Your task to perform on an android device: turn off sleep mode Image 0: 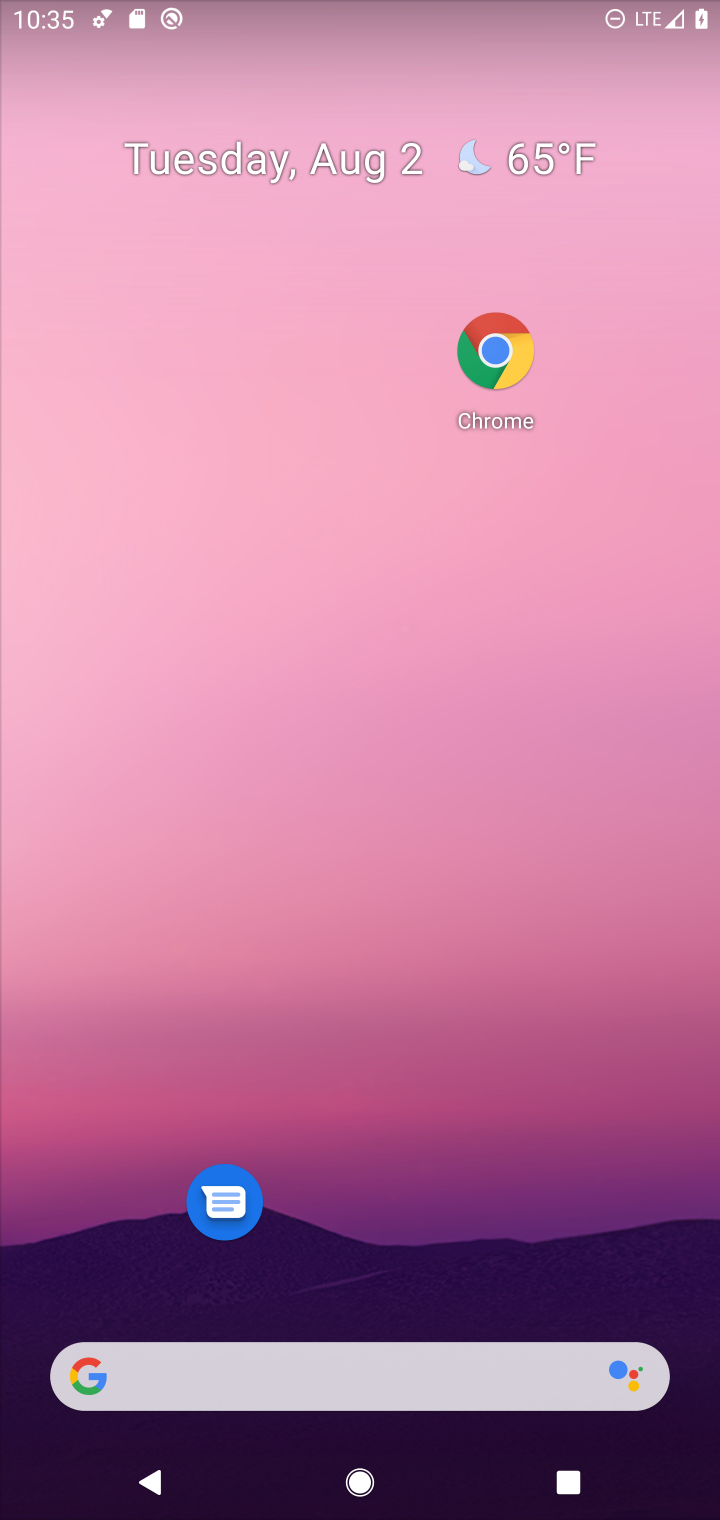
Step 0: drag from (404, 1194) to (399, 36)
Your task to perform on an android device: turn off sleep mode Image 1: 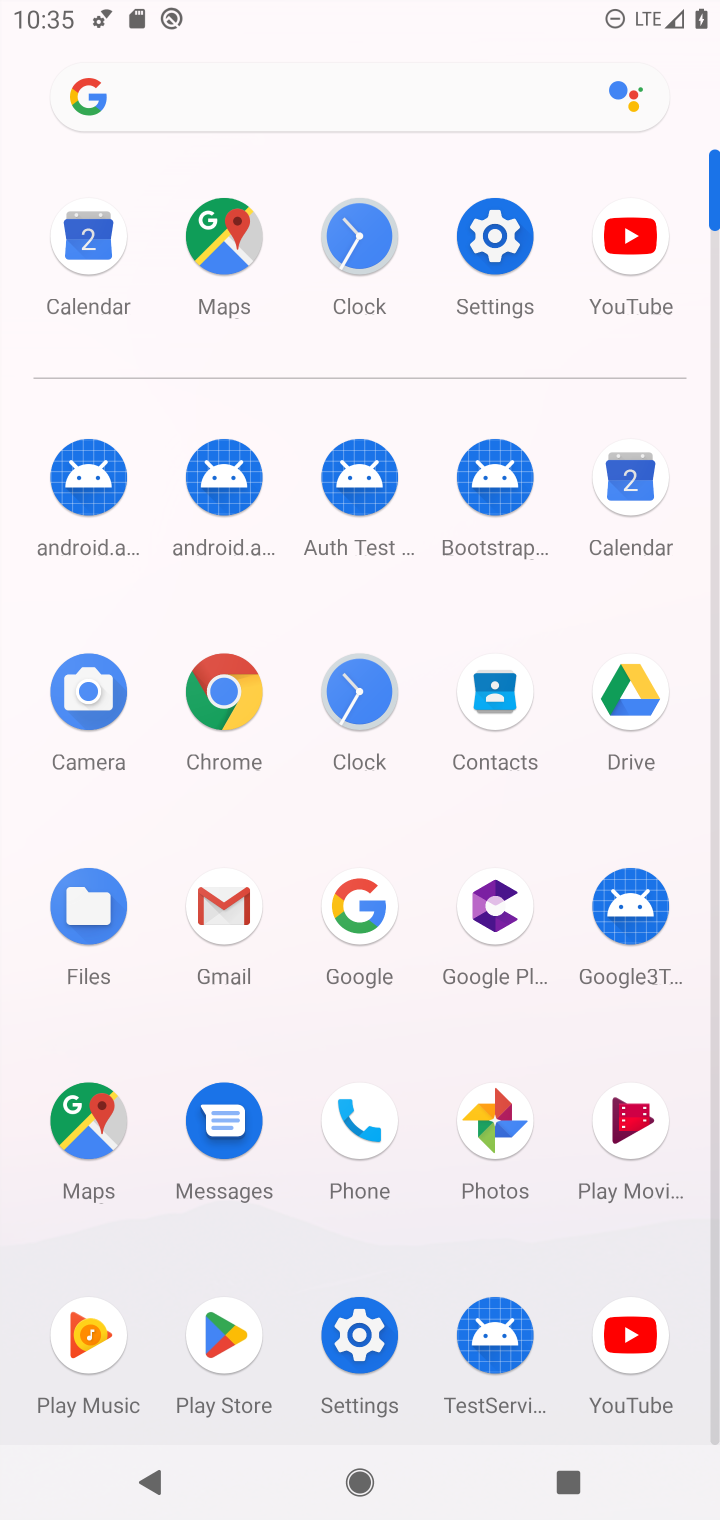
Step 1: click (485, 226)
Your task to perform on an android device: turn off sleep mode Image 2: 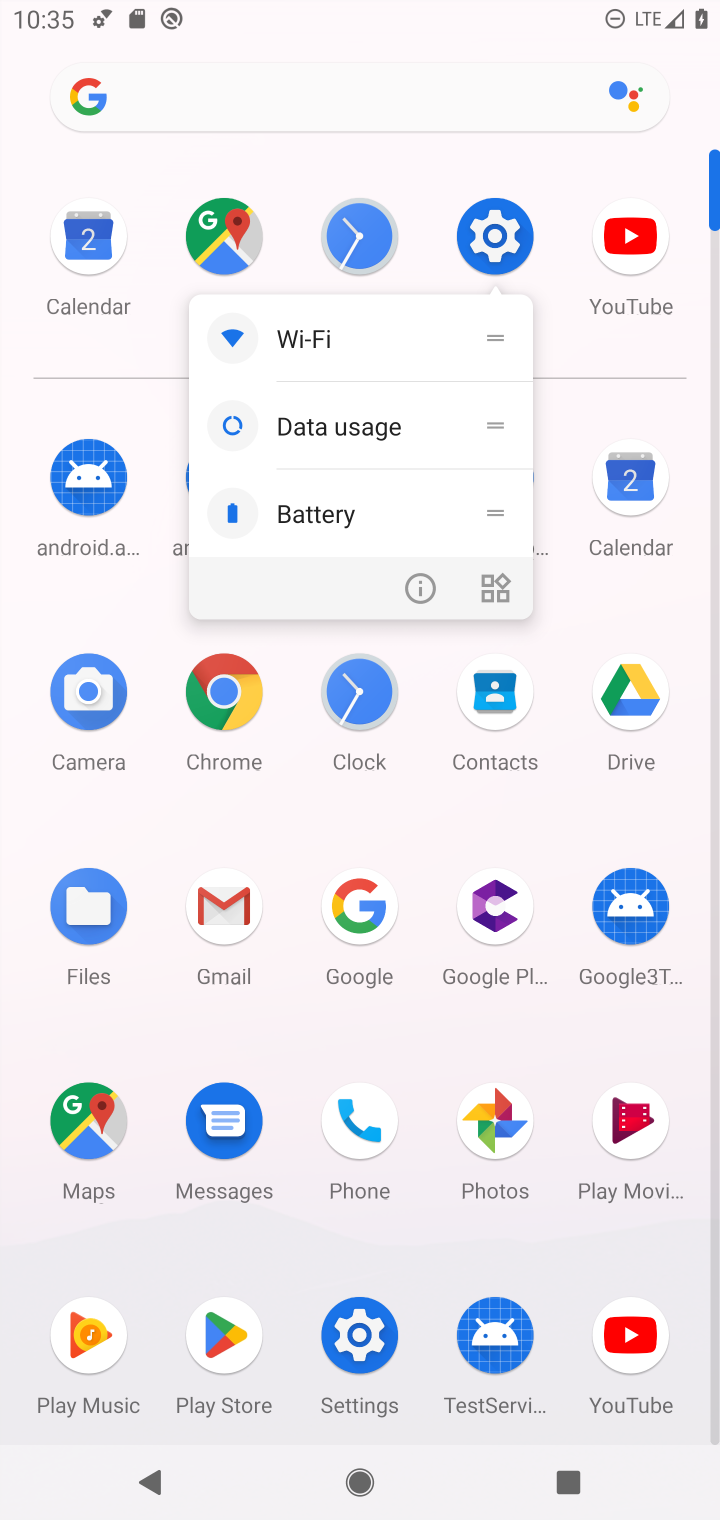
Step 2: click (485, 226)
Your task to perform on an android device: turn off sleep mode Image 3: 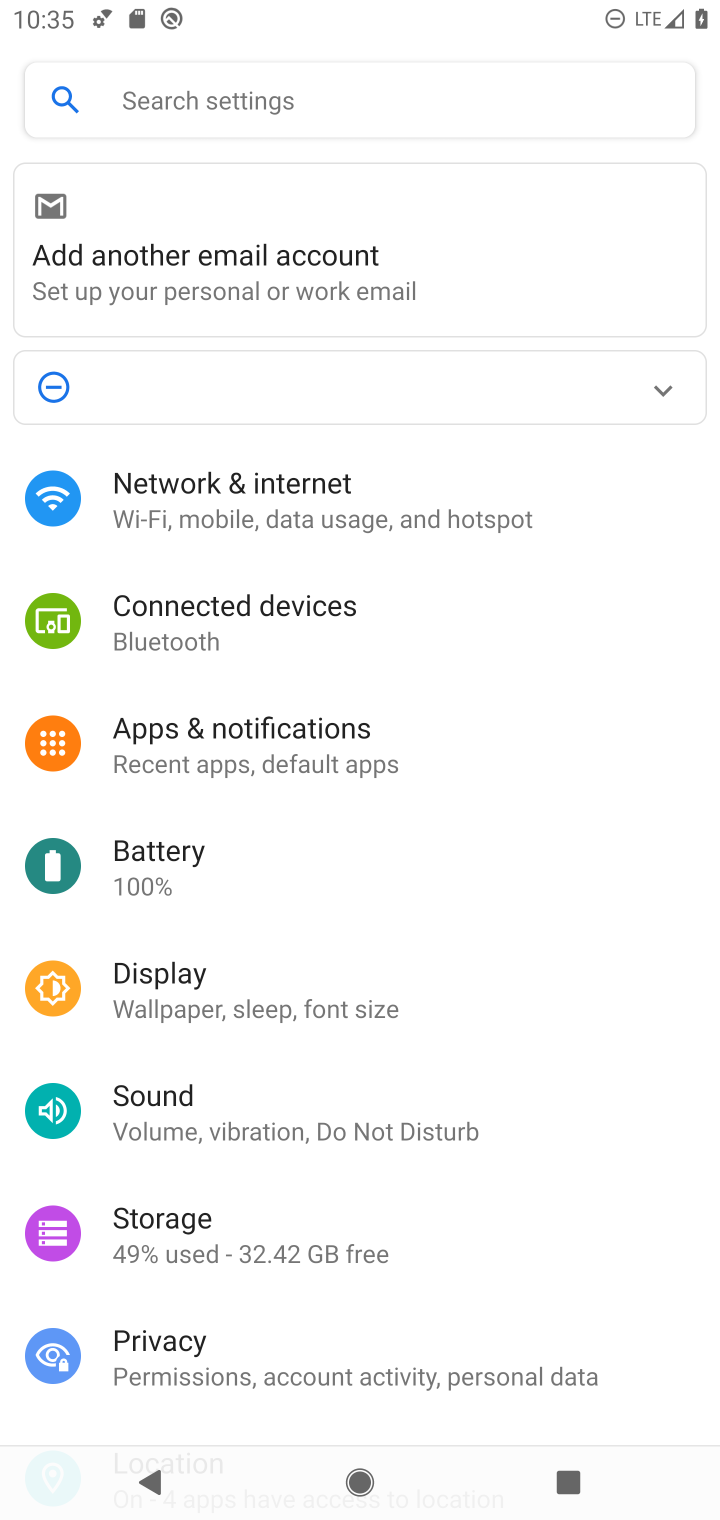
Step 3: click (165, 994)
Your task to perform on an android device: turn off sleep mode Image 4: 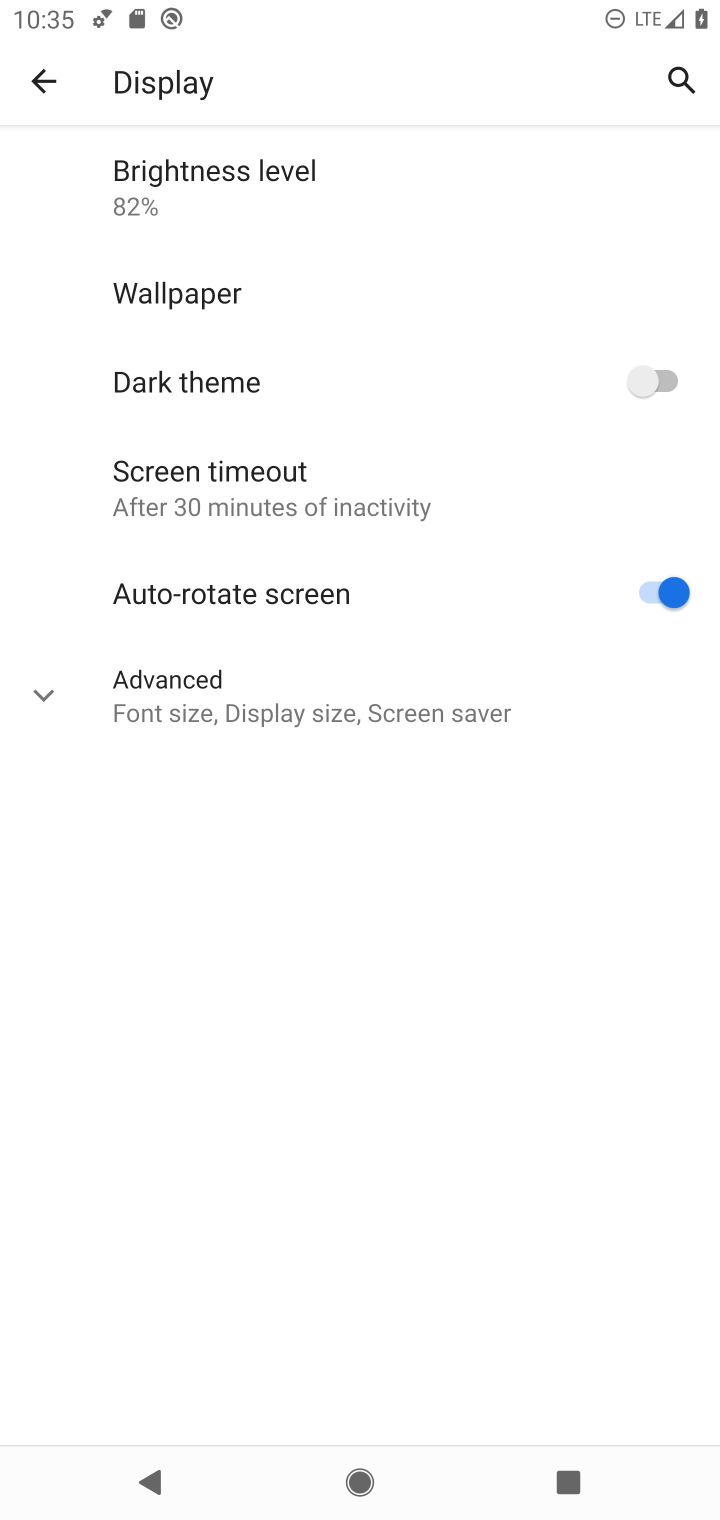
Step 4: click (52, 703)
Your task to perform on an android device: turn off sleep mode Image 5: 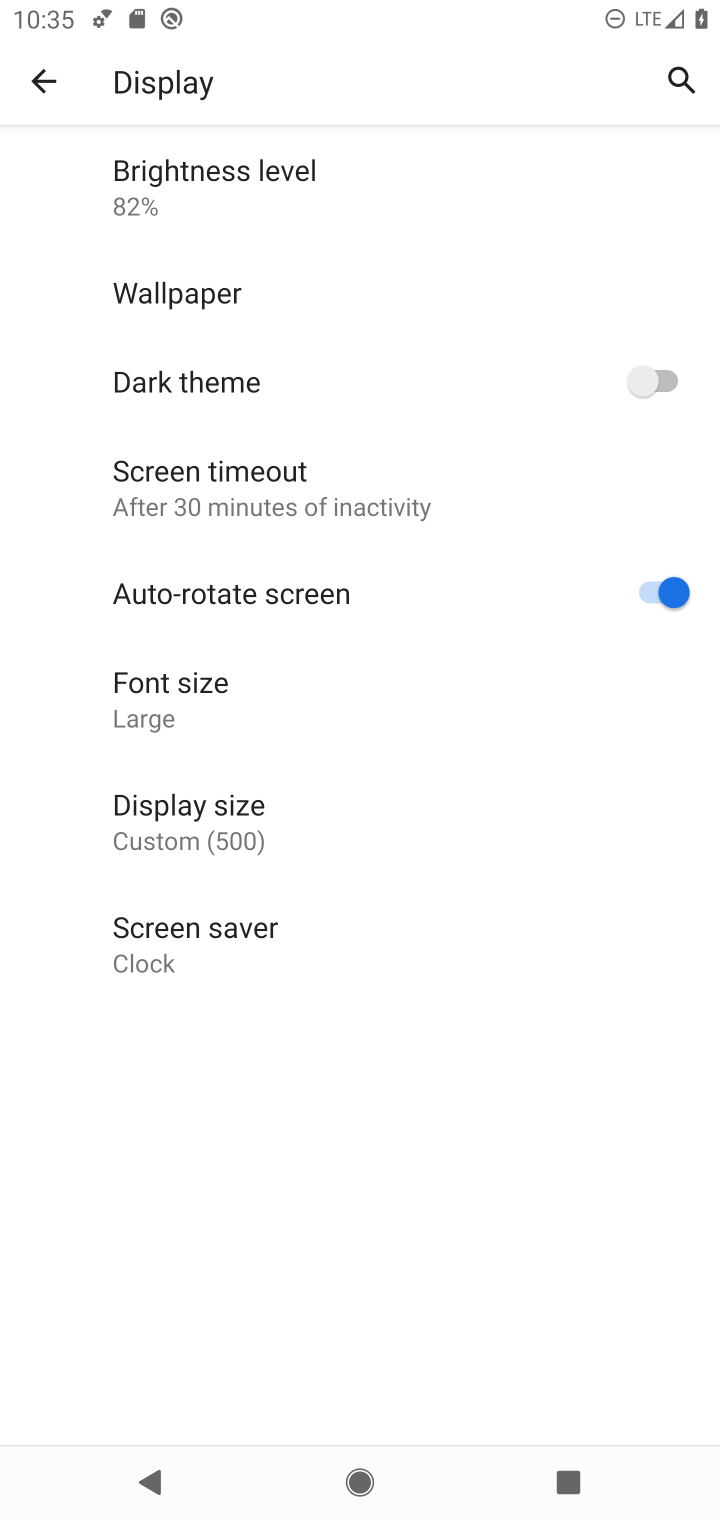
Step 5: task complete